Your task to perform on an android device: Open the map Image 0: 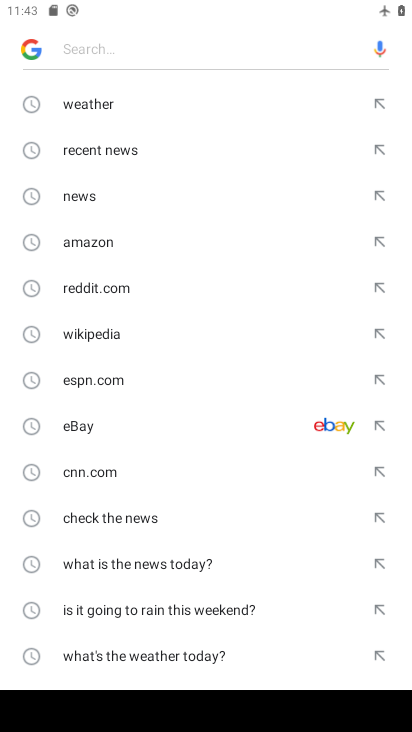
Step 0: press home button
Your task to perform on an android device: Open the map Image 1: 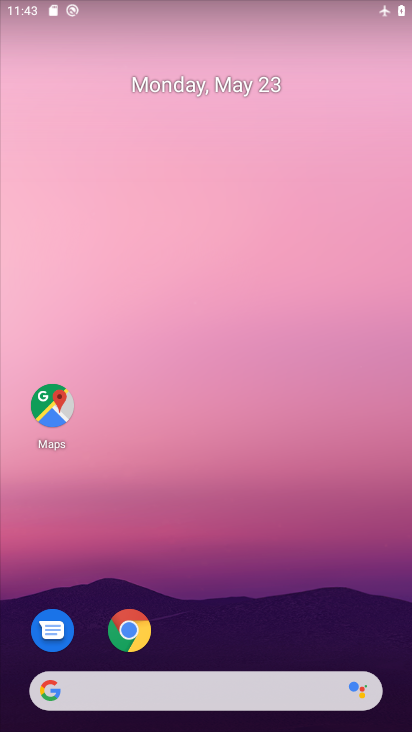
Step 1: click (72, 402)
Your task to perform on an android device: Open the map Image 2: 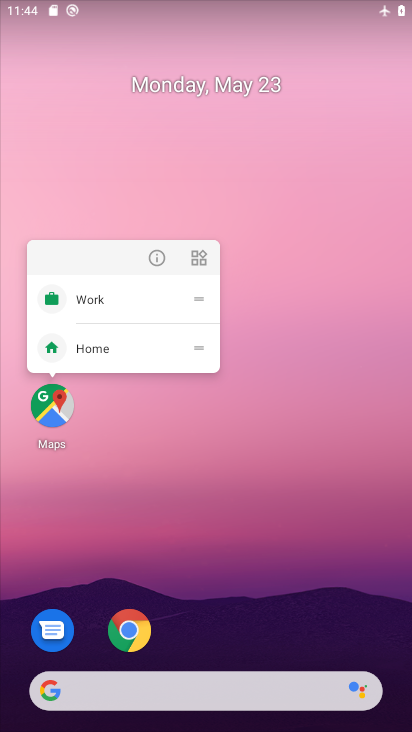
Step 2: click (63, 417)
Your task to perform on an android device: Open the map Image 3: 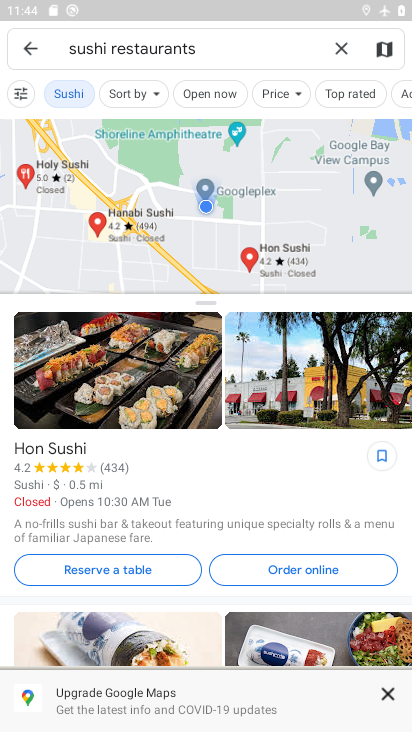
Step 3: click (31, 45)
Your task to perform on an android device: Open the map Image 4: 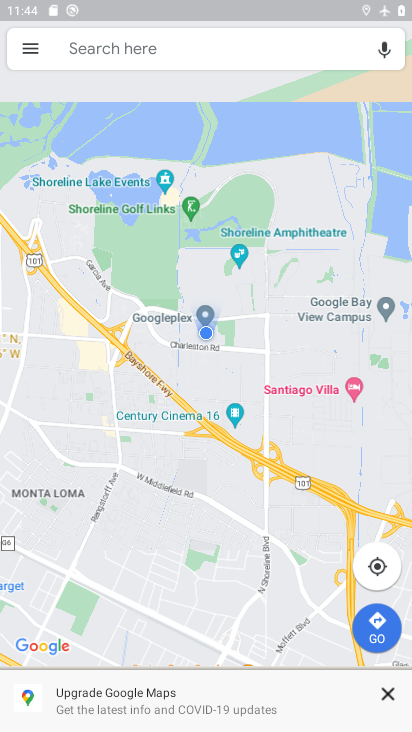
Step 4: task complete